Your task to perform on an android device: Open the map Image 0: 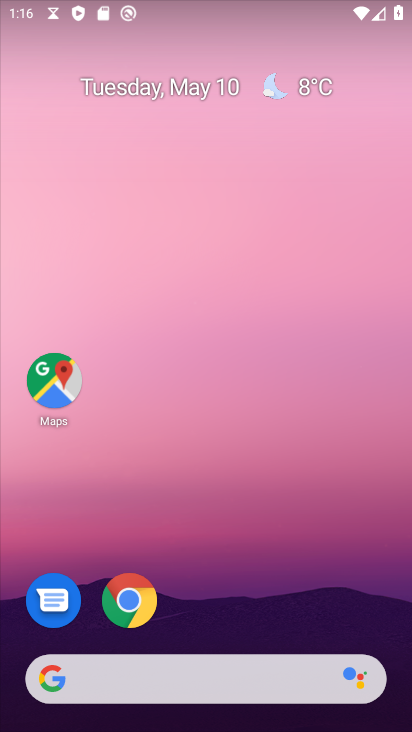
Step 0: click (48, 380)
Your task to perform on an android device: Open the map Image 1: 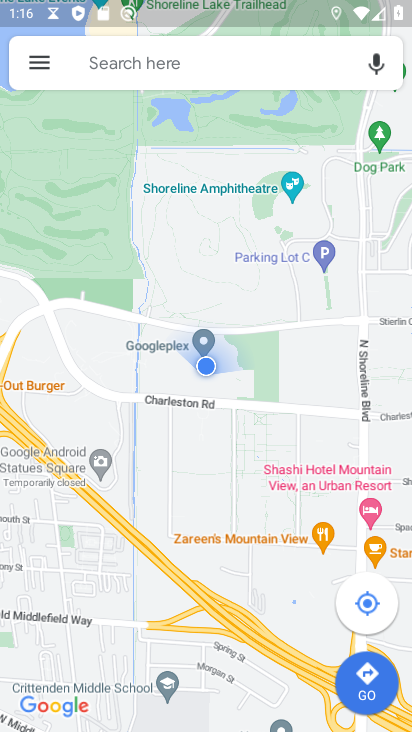
Step 1: task complete